Your task to perform on an android device: turn on data saver in the chrome app Image 0: 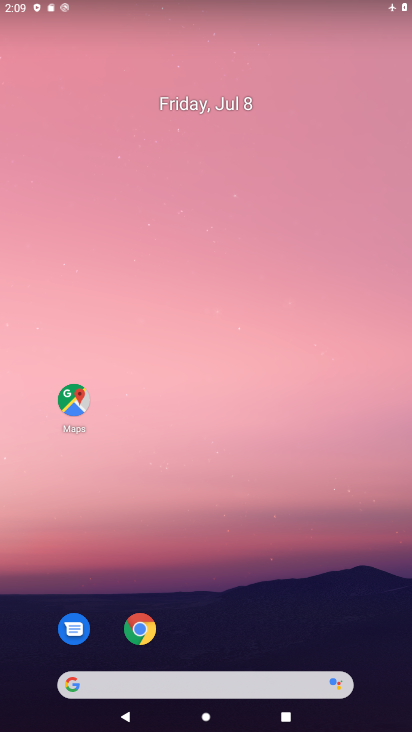
Step 0: click (135, 625)
Your task to perform on an android device: turn on data saver in the chrome app Image 1: 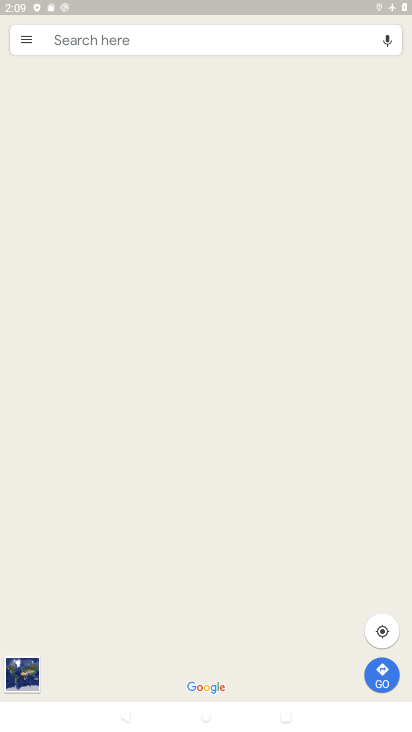
Step 1: press home button
Your task to perform on an android device: turn on data saver in the chrome app Image 2: 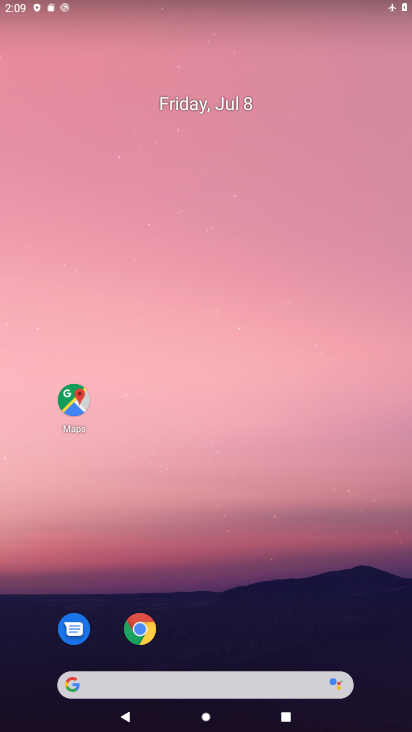
Step 2: click (147, 635)
Your task to perform on an android device: turn on data saver in the chrome app Image 3: 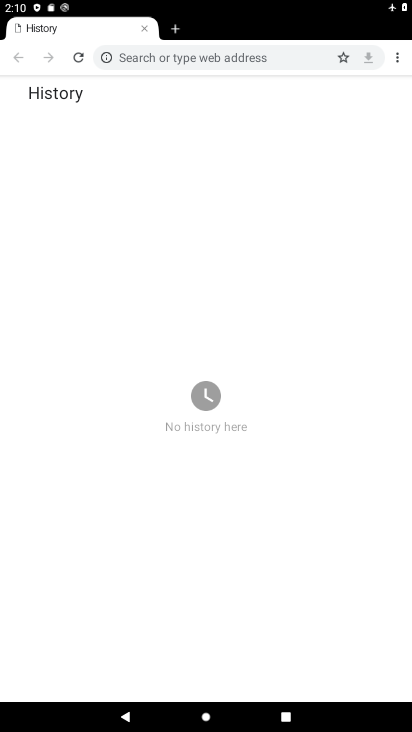
Step 3: click (394, 56)
Your task to perform on an android device: turn on data saver in the chrome app Image 4: 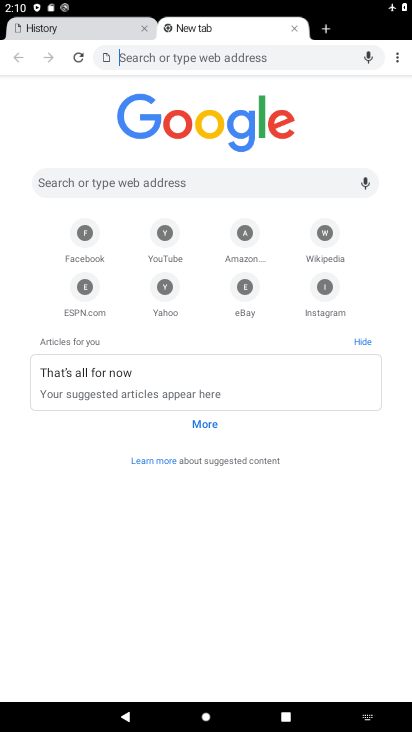
Step 4: task complete